Your task to perform on an android device: Go to wifi settings Image 0: 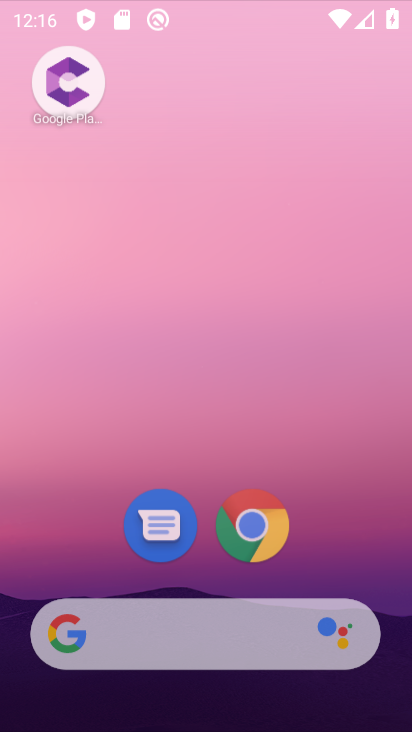
Step 0: press home button
Your task to perform on an android device: Go to wifi settings Image 1: 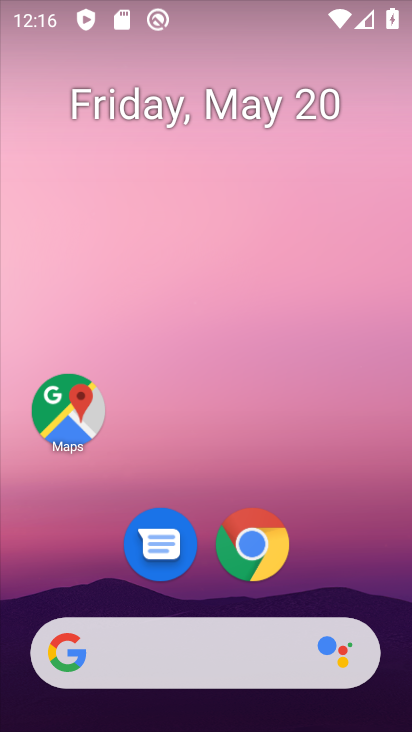
Step 1: click (270, 544)
Your task to perform on an android device: Go to wifi settings Image 2: 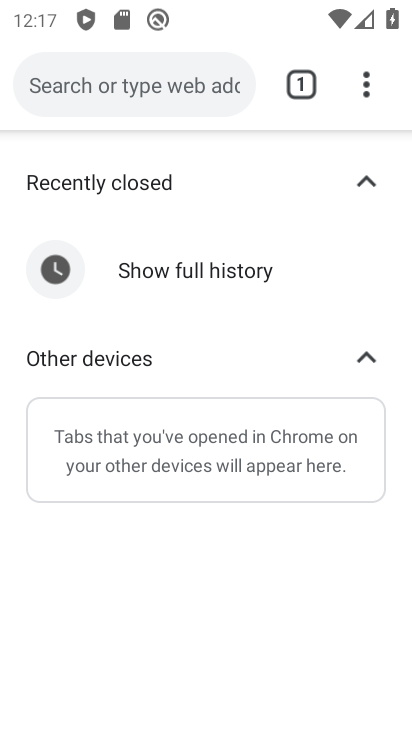
Step 2: press home button
Your task to perform on an android device: Go to wifi settings Image 3: 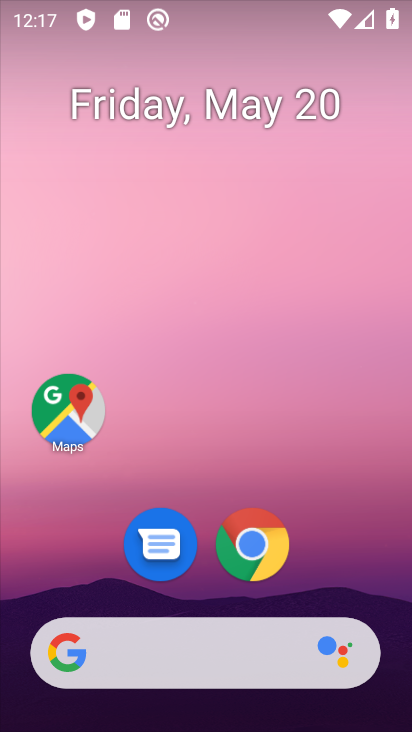
Step 3: drag from (317, 552) to (308, 155)
Your task to perform on an android device: Go to wifi settings Image 4: 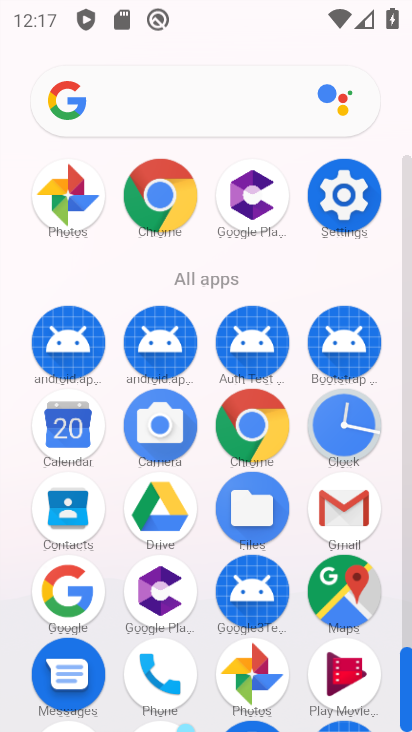
Step 4: click (358, 193)
Your task to perform on an android device: Go to wifi settings Image 5: 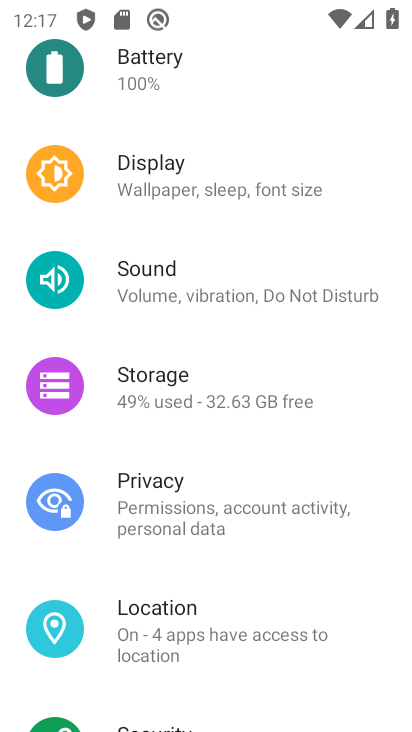
Step 5: drag from (279, 144) to (261, 558)
Your task to perform on an android device: Go to wifi settings Image 6: 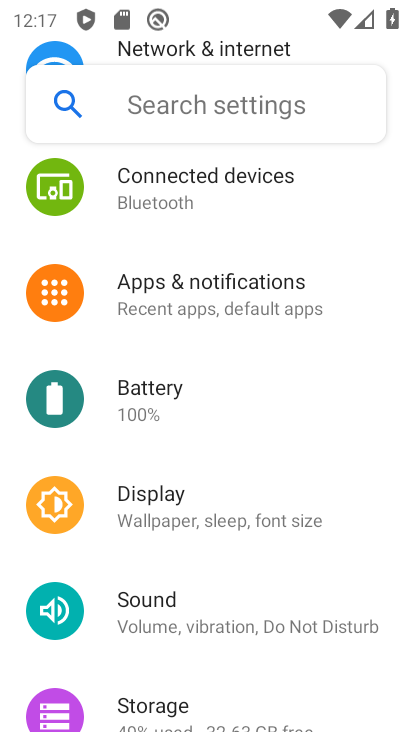
Step 6: drag from (262, 198) to (304, 581)
Your task to perform on an android device: Go to wifi settings Image 7: 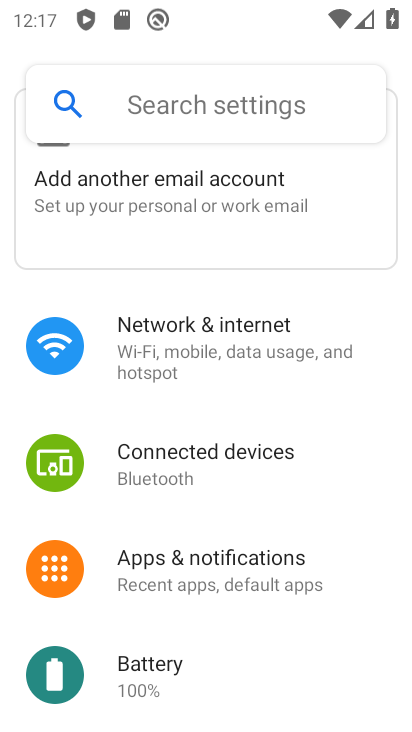
Step 7: click (289, 331)
Your task to perform on an android device: Go to wifi settings Image 8: 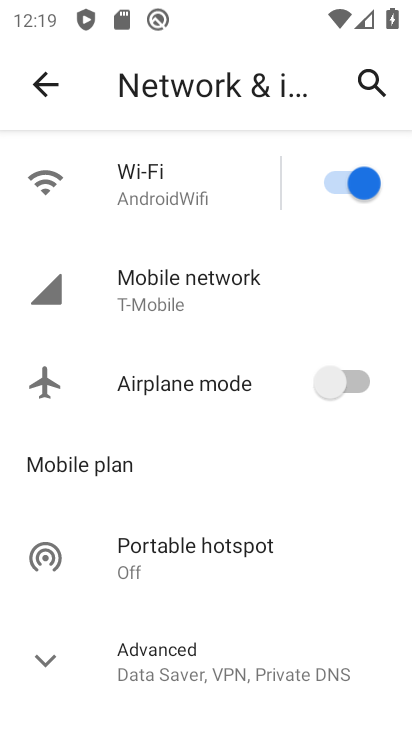
Step 8: click (199, 174)
Your task to perform on an android device: Go to wifi settings Image 9: 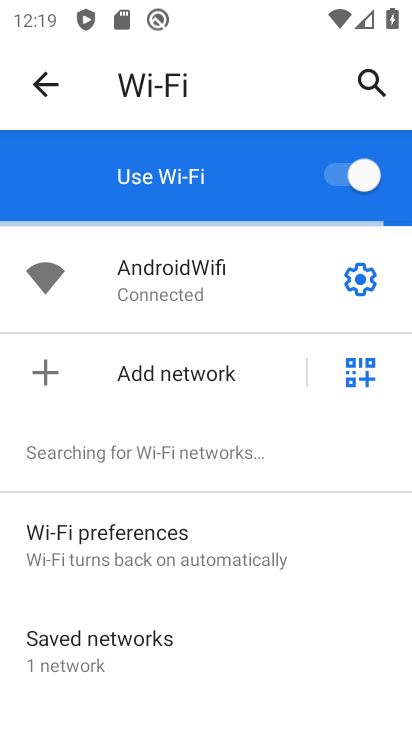
Step 9: click (366, 280)
Your task to perform on an android device: Go to wifi settings Image 10: 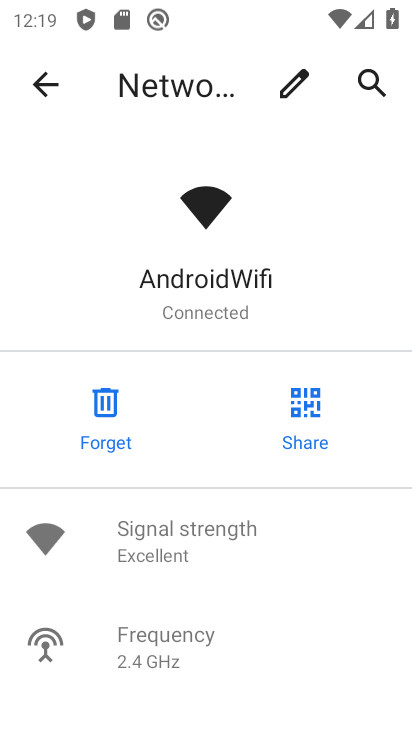
Step 10: task complete